Your task to perform on an android device: Open the calendar app, open the side menu, and click the "Day" option Image 0: 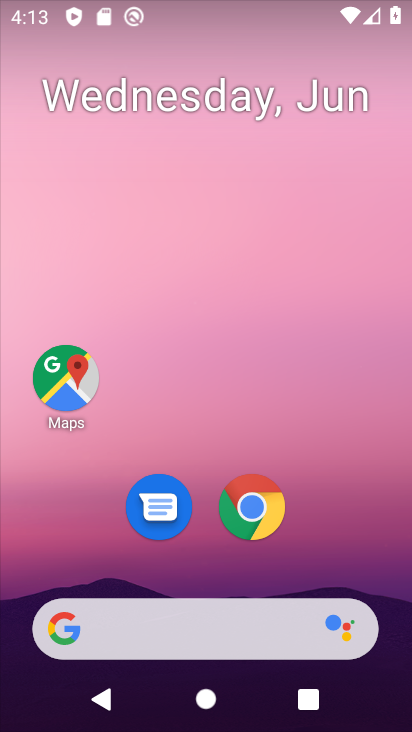
Step 0: drag from (68, 601) to (196, 102)
Your task to perform on an android device: Open the calendar app, open the side menu, and click the "Day" option Image 1: 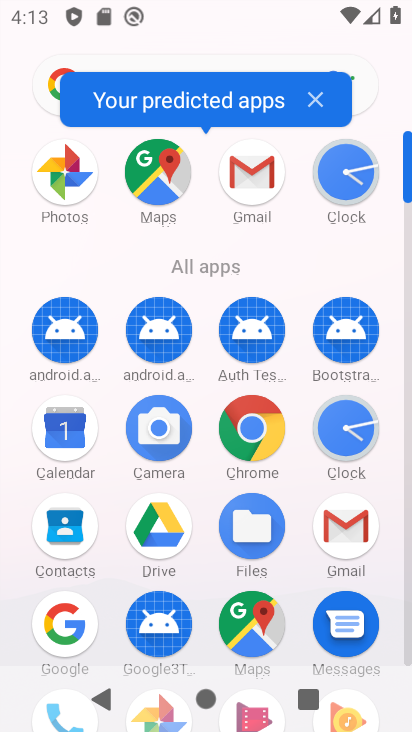
Step 1: click (84, 435)
Your task to perform on an android device: Open the calendar app, open the side menu, and click the "Day" option Image 2: 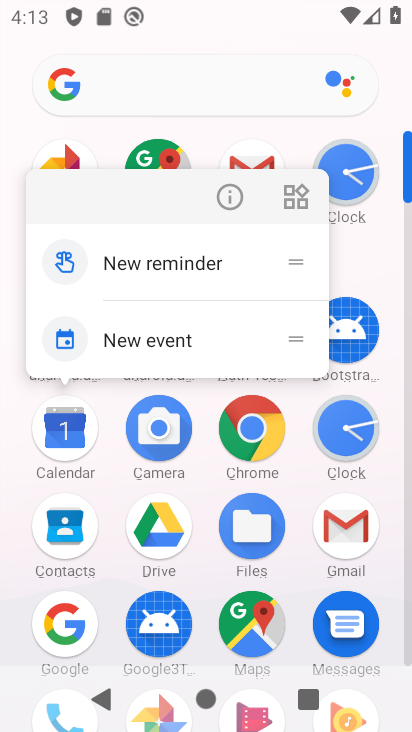
Step 2: click (84, 437)
Your task to perform on an android device: Open the calendar app, open the side menu, and click the "Day" option Image 3: 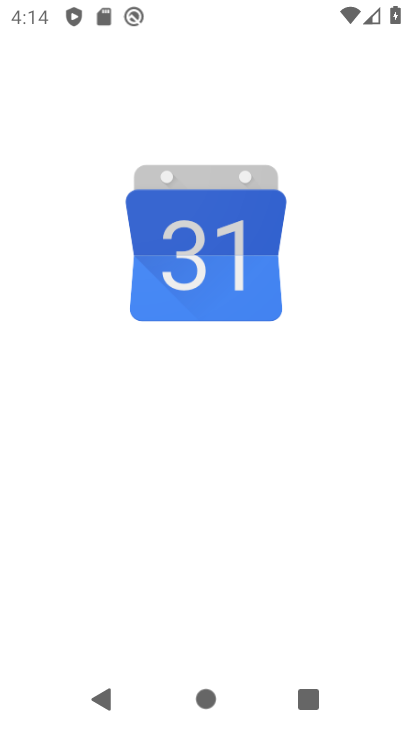
Step 3: click (74, 441)
Your task to perform on an android device: Open the calendar app, open the side menu, and click the "Day" option Image 4: 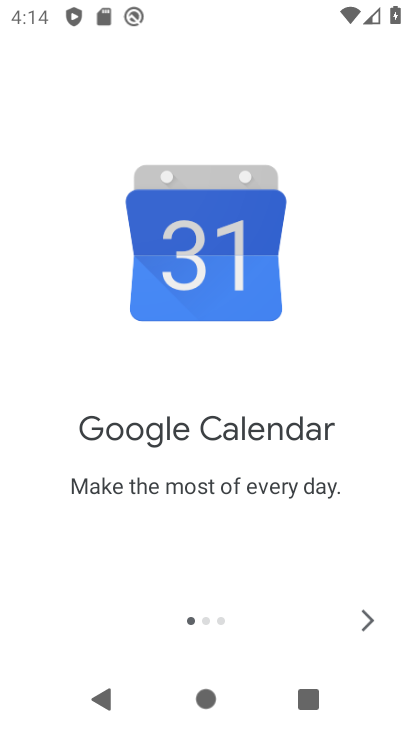
Step 4: click (367, 621)
Your task to perform on an android device: Open the calendar app, open the side menu, and click the "Day" option Image 5: 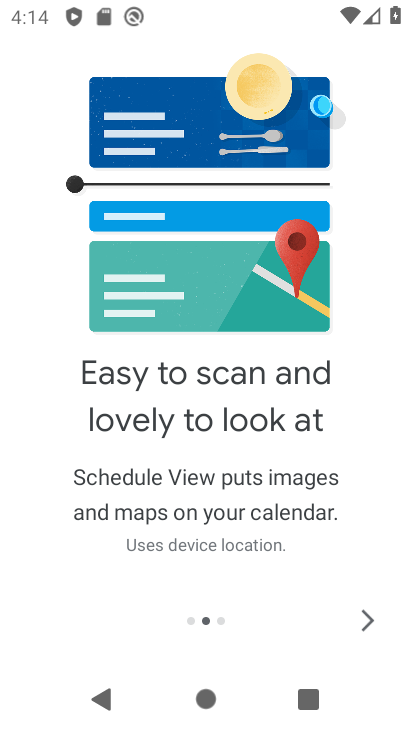
Step 5: click (367, 621)
Your task to perform on an android device: Open the calendar app, open the side menu, and click the "Day" option Image 6: 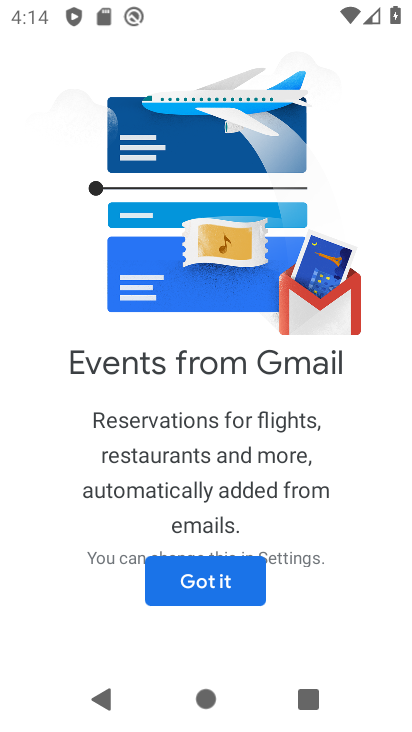
Step 6: click (232, 600)
Your task to perform on an android device: Open the calendar app, open the side menu, and click the "Day" option Image 7: 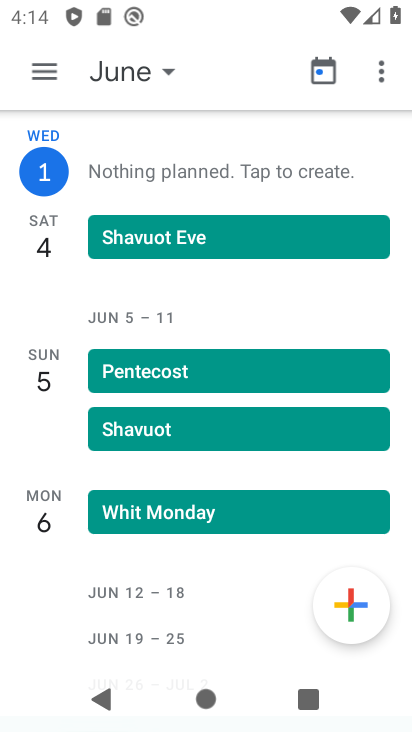
Step 7: click (54, 59)
Your task to perform on an android device: Open the calendar app, open the side menu, and click the "Day" option Image 8: 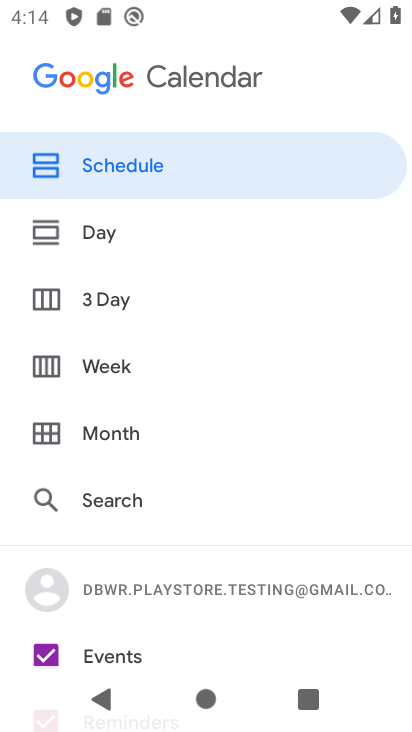
Step 8: click (143, 224)
Your task to perform on an android device: Open the calendar app, open the side menu, and click the "Day" option Image 9: 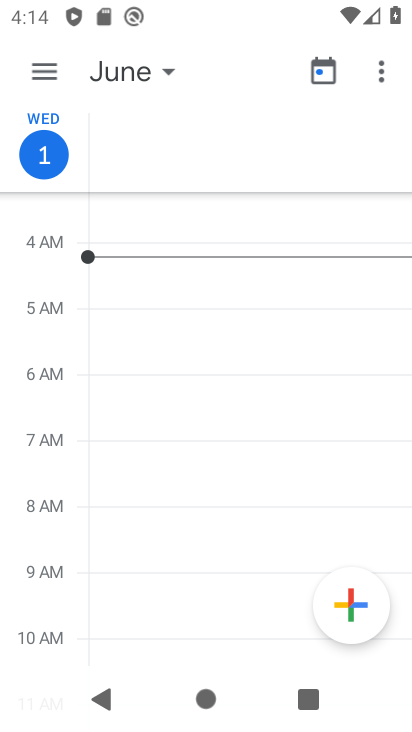
Step 9: task complete